Your task to perform on an android device: Open accessibility settings Image 0: 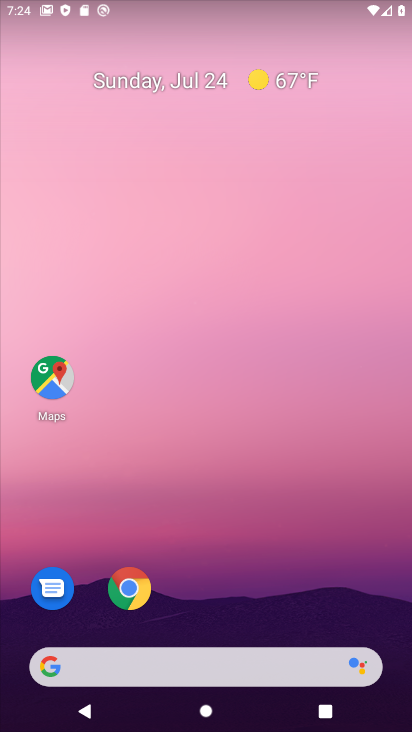
Step 0: drag from (245, 588) to (243, 44)
Your task to perform on an android device: Open accessibility settings Image 1: 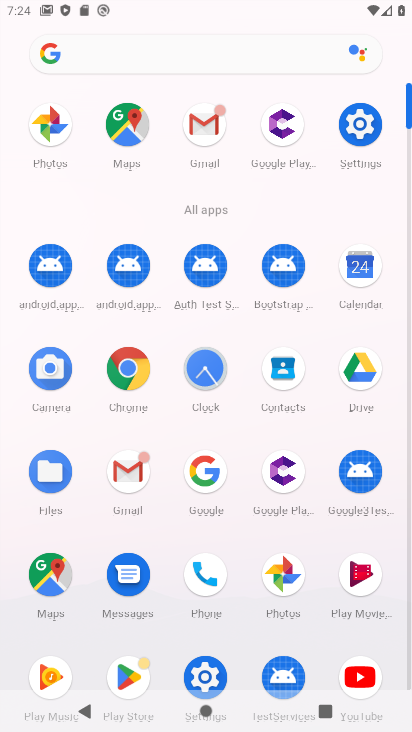
Step 1: click (363, 139)
Your task to perform on an android device: Open accessibility settings Image 2: 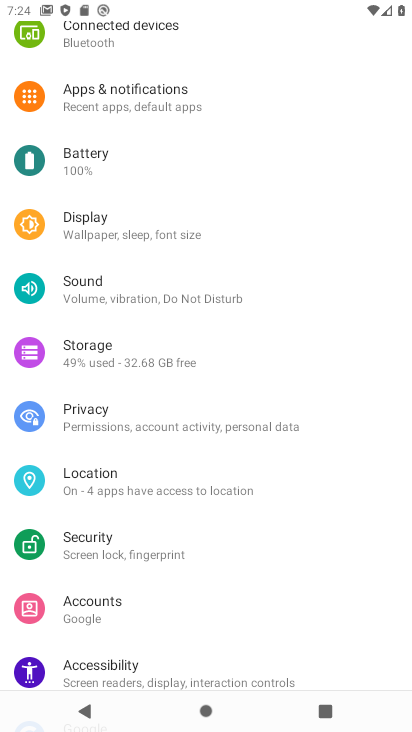
Step 2: click (124, 674)
Your task to perform on an android device: Open accessibility settings Image 3: 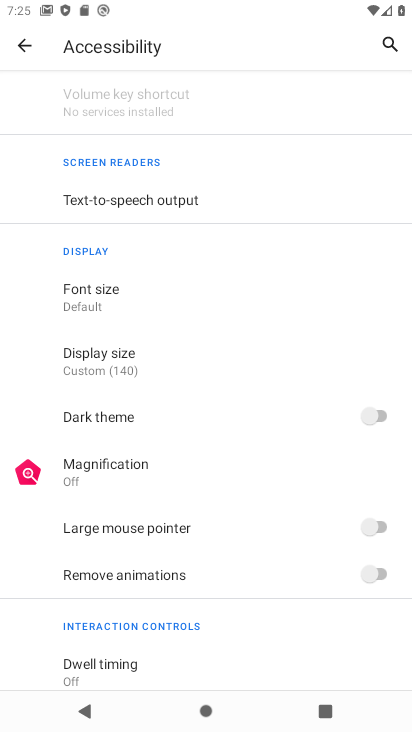
Step 3: task complete